Your task to perform on an android device: Go to Google maps Image 0: 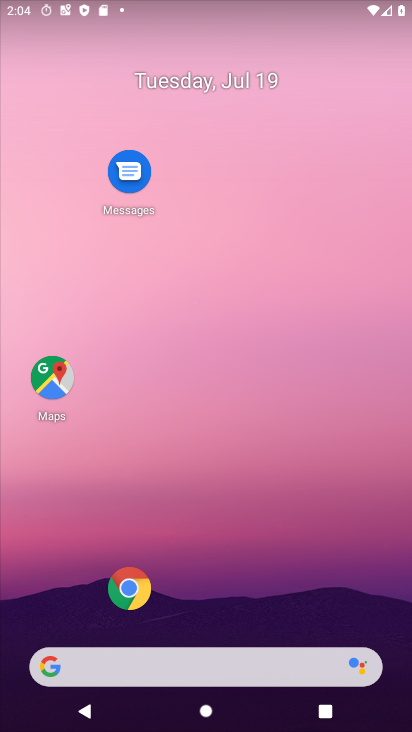
Step 0: click (56, 390)
Your task to perform on an android device: Go to Google maps Image 1: 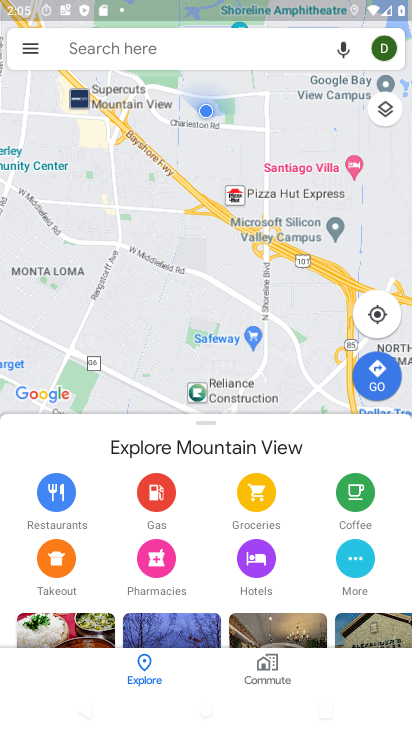
Step 1: task complete